Your task to perform on an android device: Search for Italian restaurants on Maps Image 0: 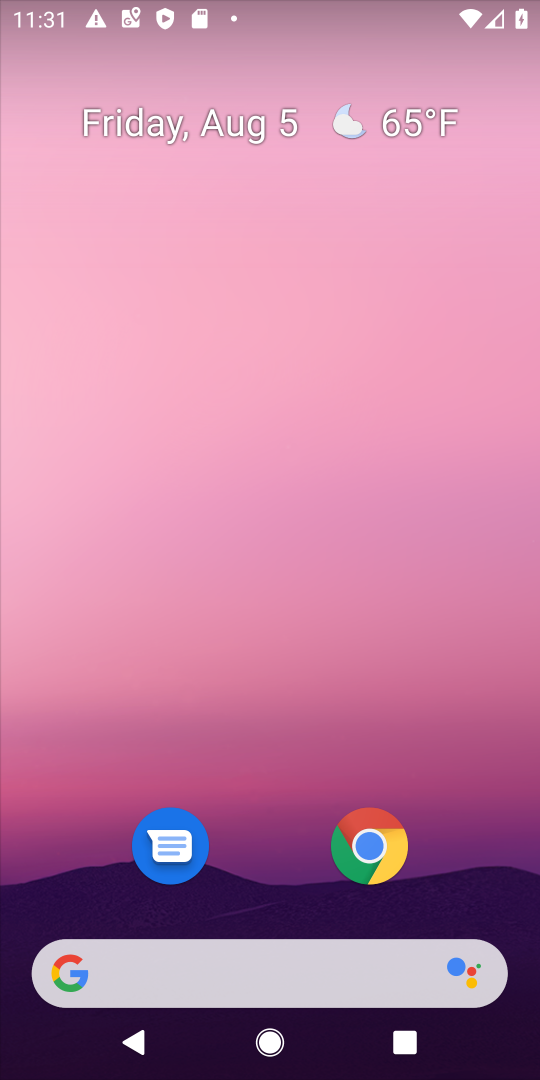
Step 0: drag from (306, 641) to (383, 3)
Your task to perform on an android device: Search for Italian restaurants on Maps Image 1: 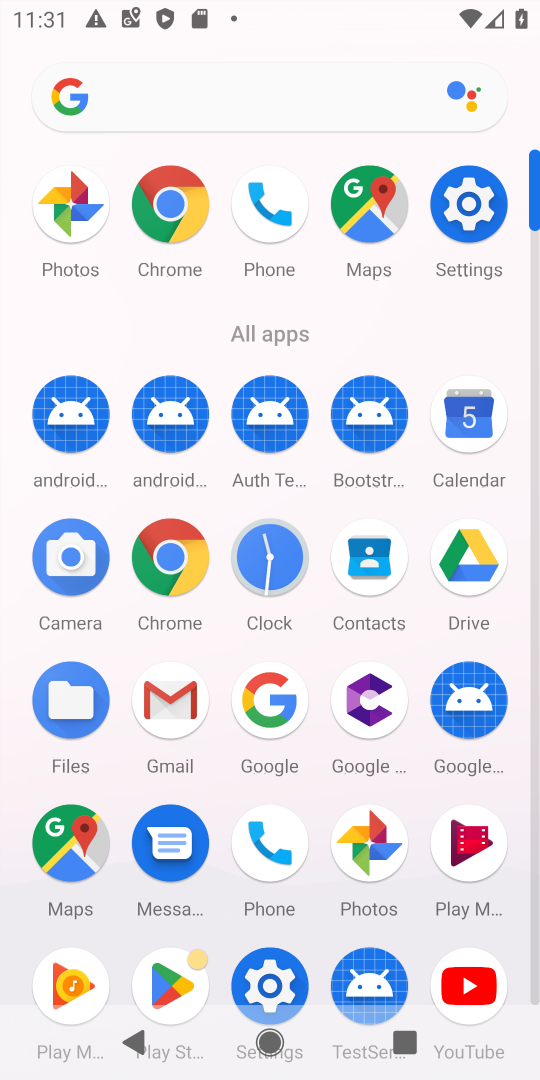
Step 1: click (364, 204)
Your task to perform on an android device: Search for Italian restaurants on Maps Image 2: 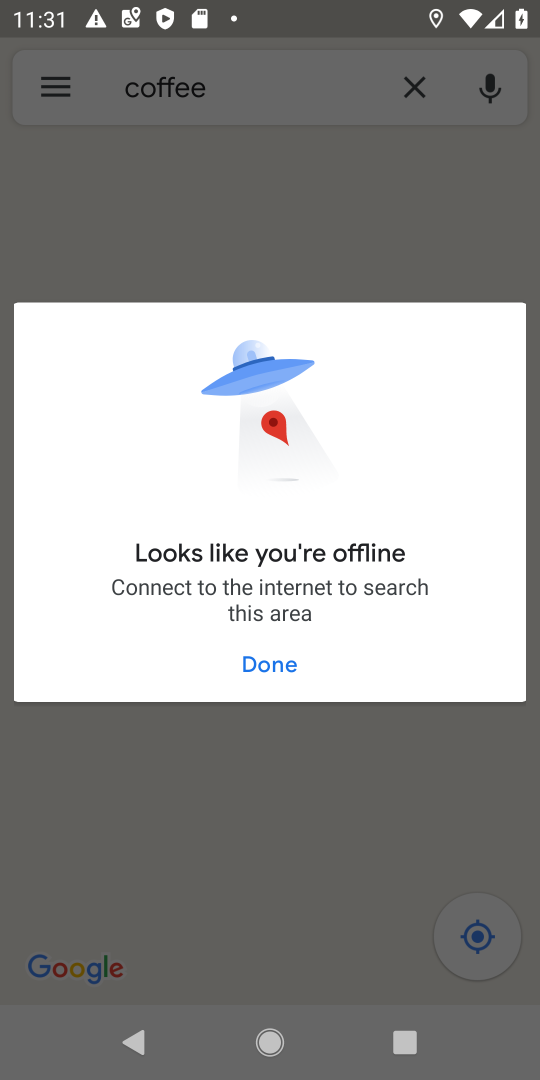
Step 2: click (282, 655)
Your task to perform on an android device: Search for Italian restaurants on Maps Image 3: 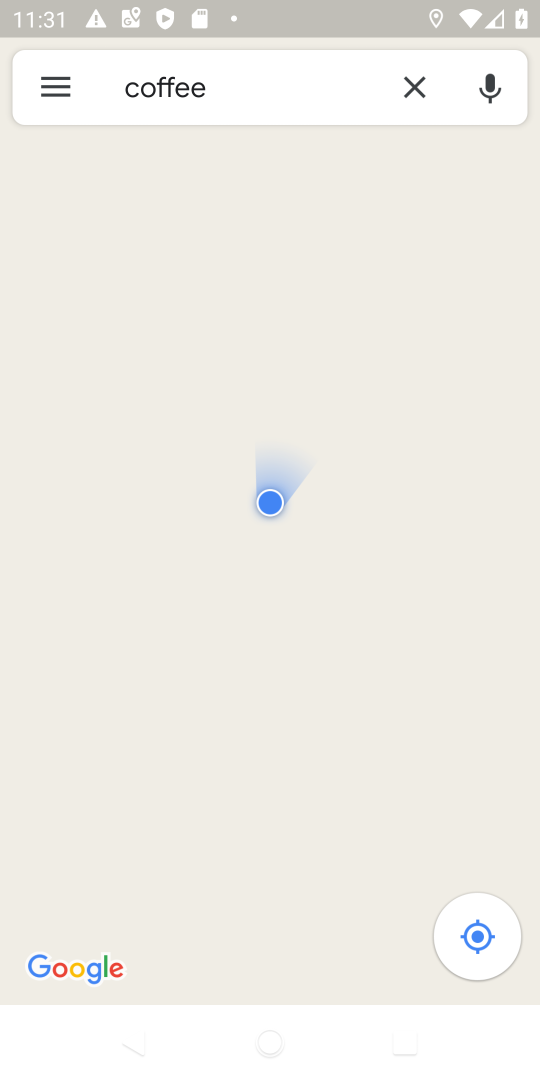
Step 3: click (416, 85)
Your task to perform on an android device: Search for Italian restaurants on Maps Image 4: 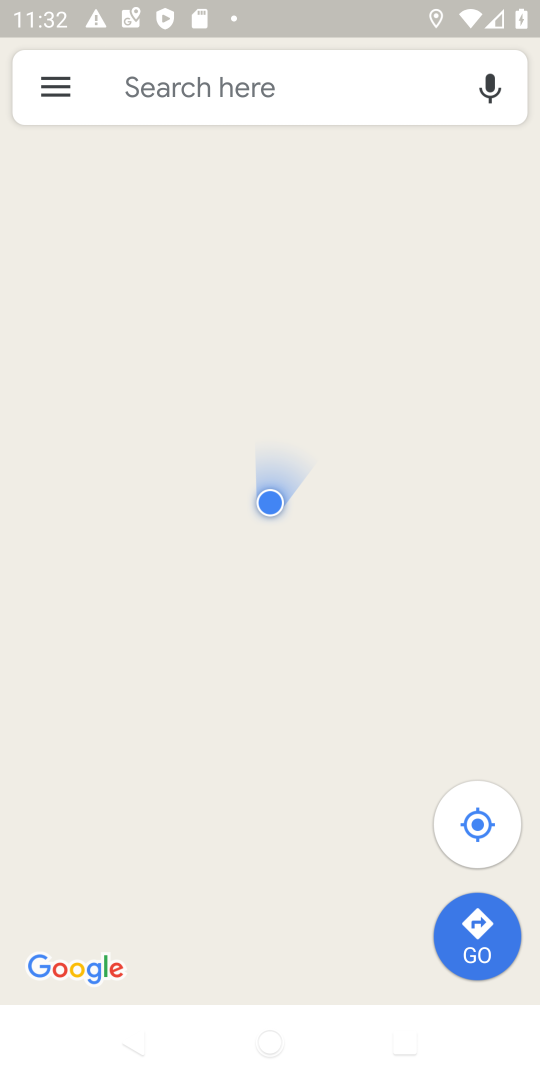
Step 4: click (268, 86)
Your task to perform on an android device: Search for Italian restaurants on Maps Image 5: 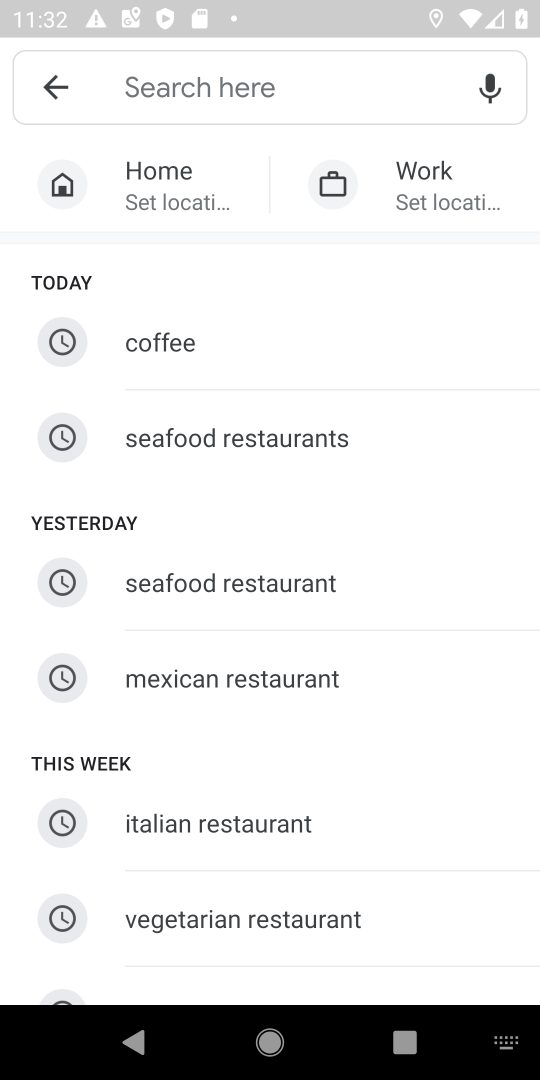
Step 5: click (239, 823)
Your task to perform on an android device: Search for Italian restaurants on Maps Image 6: 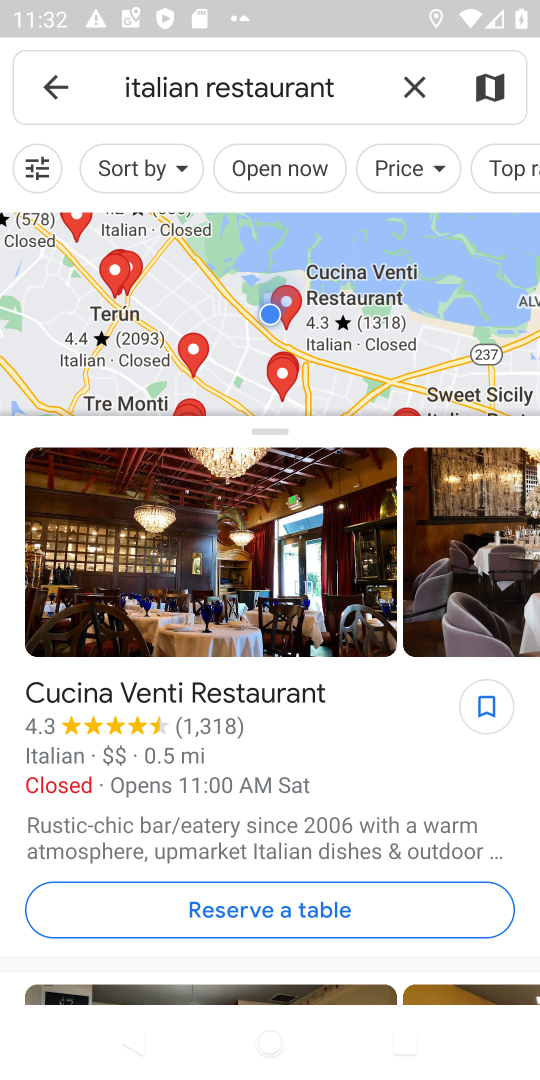
Step 6: task complete